Your task to perform on an android device: When is my next appointment? Image 0: 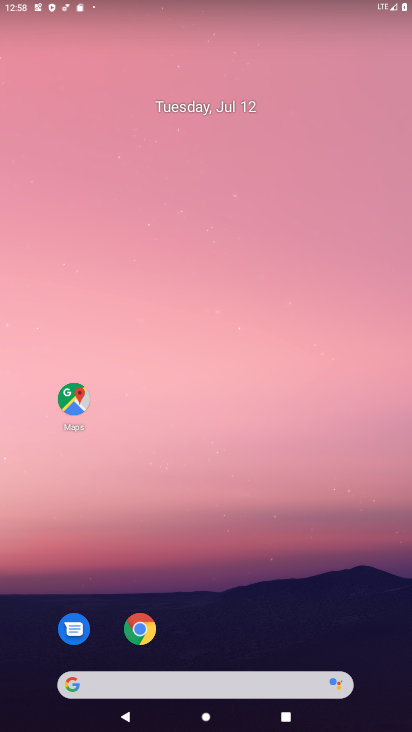
Step 0: drag from (228, 696) to (267, 23)
Your task to perform on an android device: When is my next appointment? Image 1: 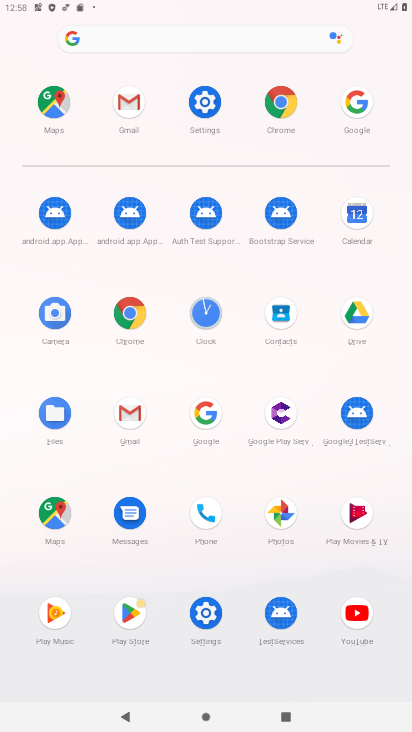
Step 1: click (361, 217)
Your task to perform on an android device: When is my next appointment? Image 2: 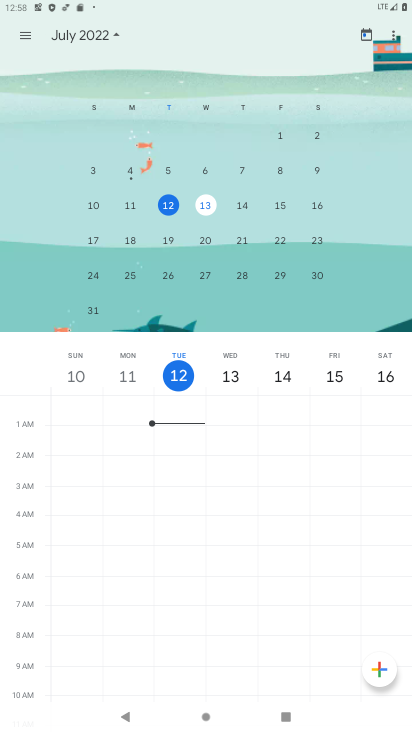
Step 2: click (203, 198)
Your task to perform on an android device: When is my next appointment? Image 3: 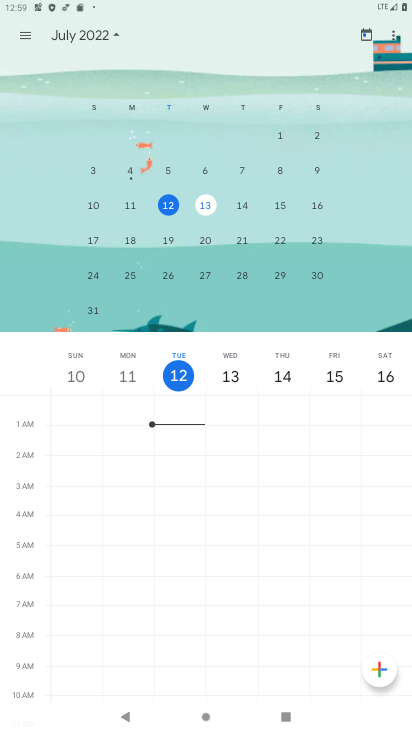
Step 3: task complete